Your task to perform on an android device: Open Google Image 0: 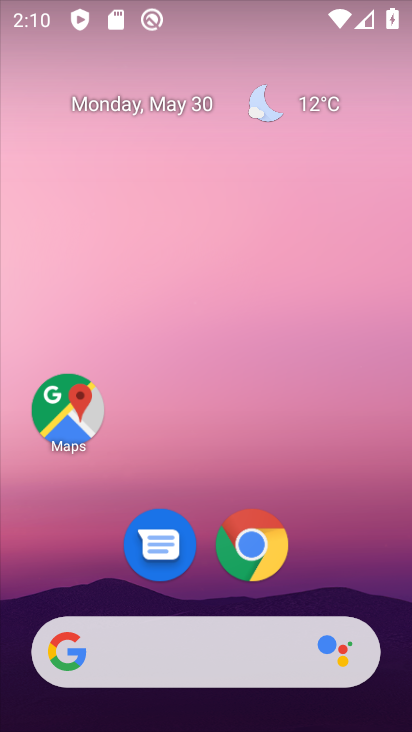
Step 0: click (142, 655)
Your task to perform on an android device: Open Google Image 1: 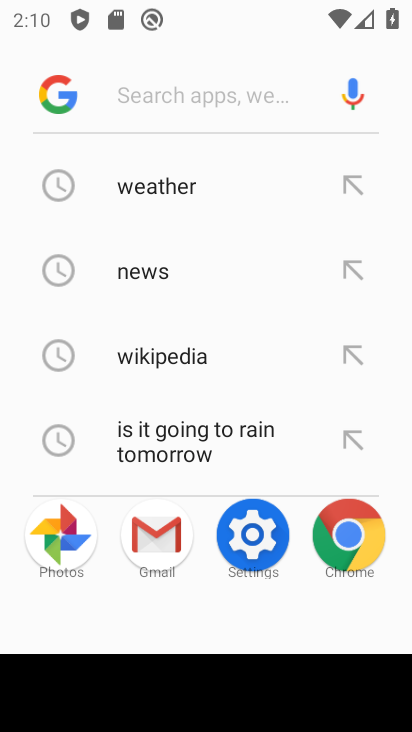
Step 1: click (164, 663)
Your task to perform on an android device: Open Google Image 2: 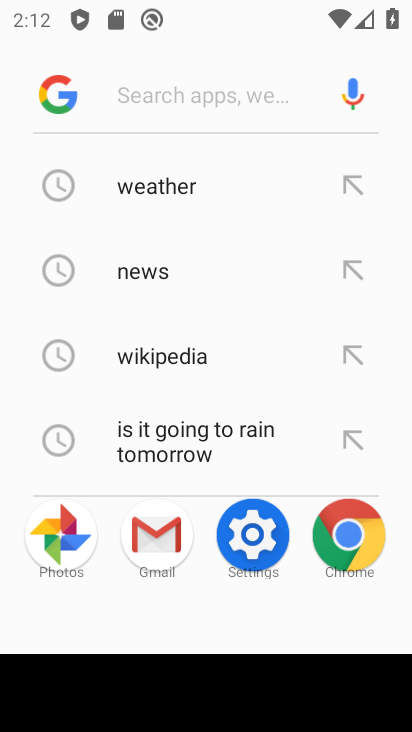
Step 2: task complete